Your task to perform on an android device: Search for Mexican restaurants on Maps Image 0: 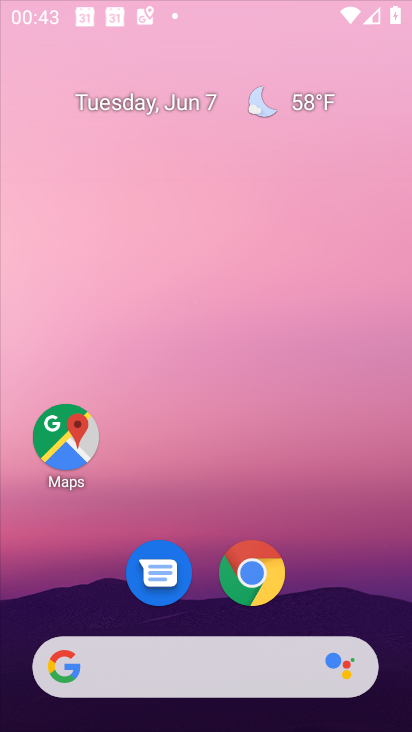
Step 0: press home button
Your task to perform on an android device: Search for Mexican restaurants on Maps Image 1: 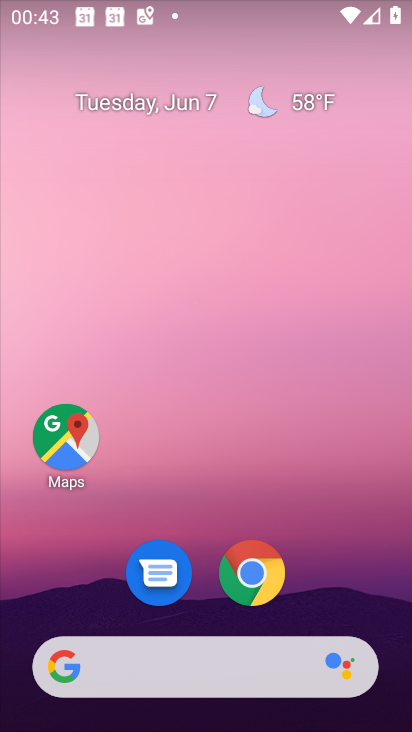
Step 1: drag from (351, 610) to (311, 182)
Your task to perform on an android device: Search for Mexican restaurants on Maps Image 2: 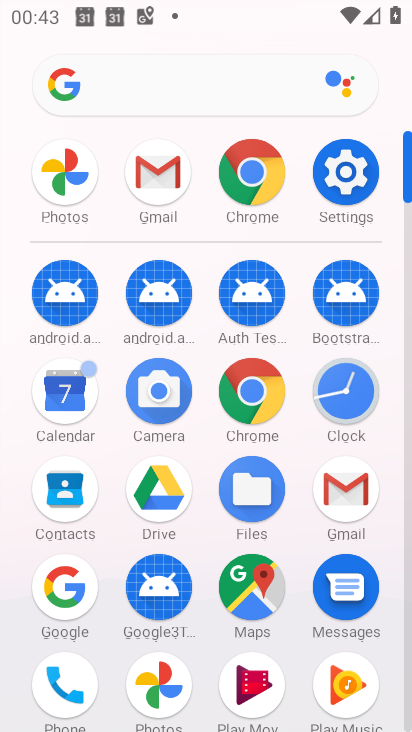
Step 2: click (257, 586)
Your task to perform on an android device: Search for Mexican restaurants on Maps Image 3: 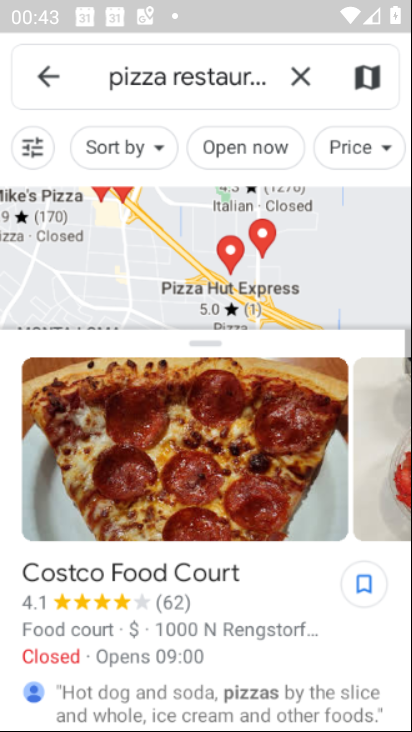
Step 3: click (294, 70)
Your task to perform on an android device: Search for Mexican restaurants on Maps Image 4: 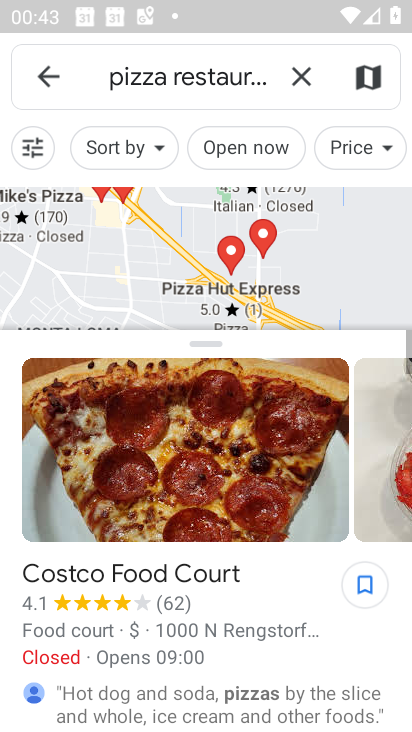
Step 4: click (201, 74)
Your task to perform on an android device: Search for Mexican restaurants on Maps Image 5: 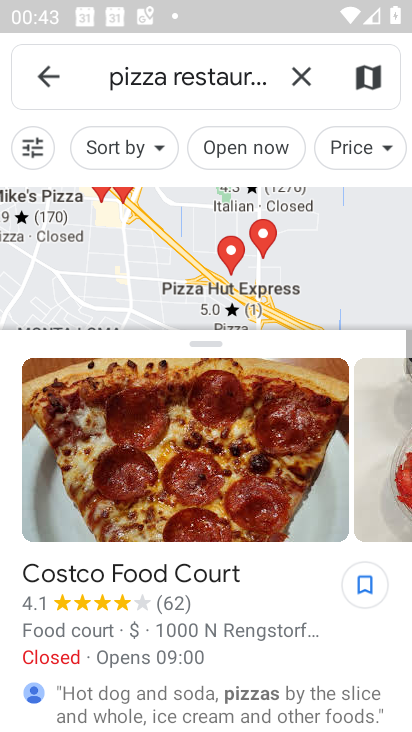
Step 5: click (201, 74)
Your task to perform on an android device: Search for Mexican restaurants on Maps Image 6: 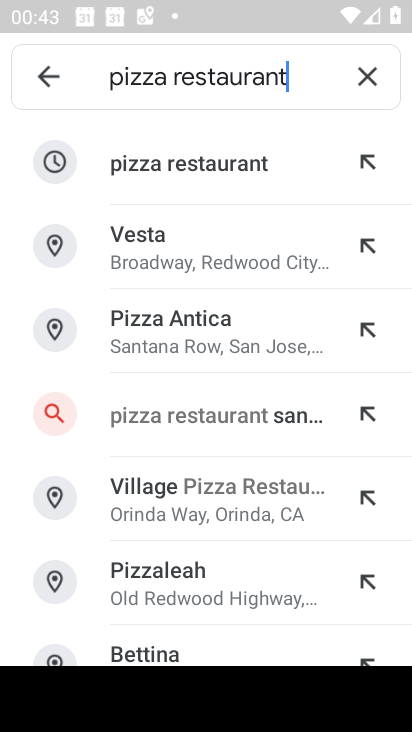
Step 6: click (366, 83)
Your task to perform on an android device: Search for Mexican restaurants on Maps Image 7: 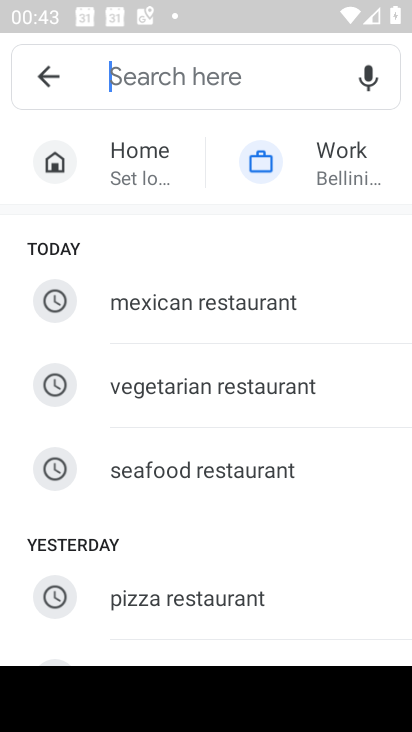
Step 7: type "Mexican restaurants "
Your task to perform on an android device: Search for Mexican restaurants on Maps Image 8: 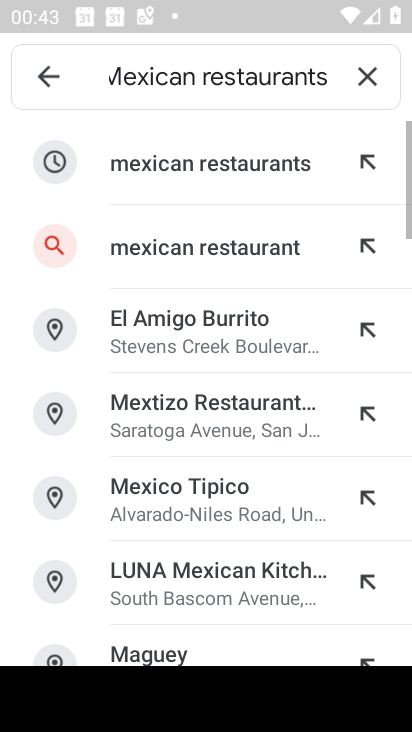
Step 8: click (340, 181)
Your task to perform on an android device: Search for Mexican restaurants on Maps Image 9: 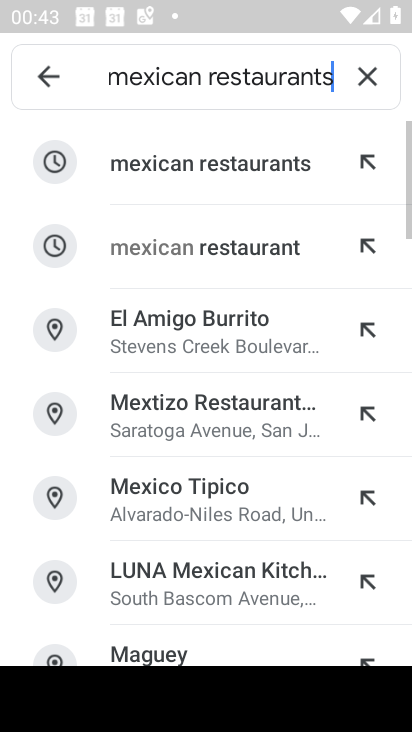
Step 9: click (313, 169)
Your task to perform on an android device: Search for Mexican restaurants on Maps Image 10: 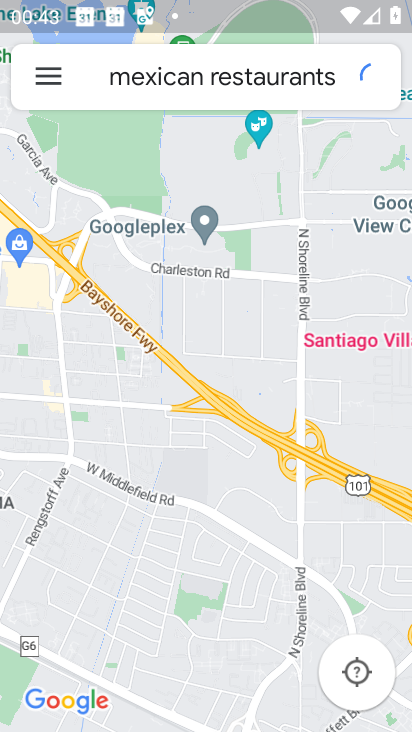
Step 10: task complete